Your task to perform on an android device: Go to network settings Image 0: 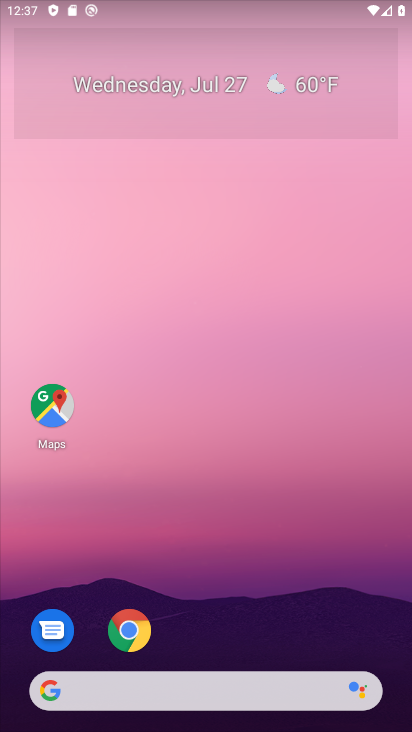
Step 0: press home button
Your task to perform on an android device: Go to network settings Image 1: 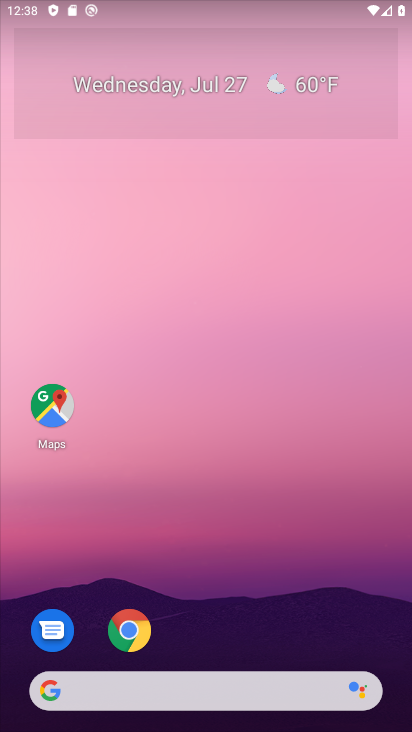
Step 1: drag from (258, 621) to (267, 225)
Your task to perform on an android device: Go to network settings Image 2: 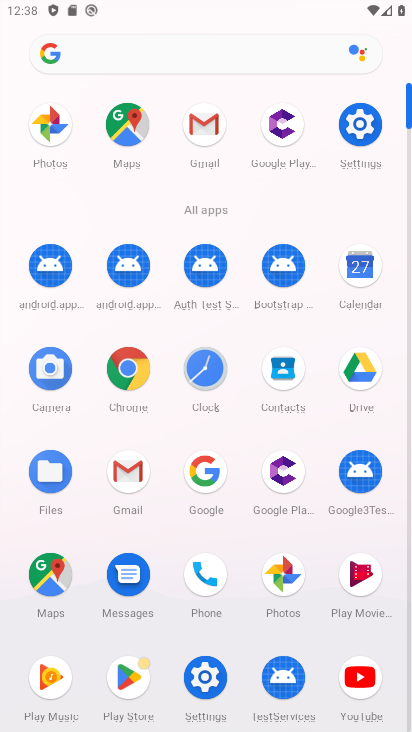
Step 2: click (355, 143)
Your task to perform on an android device: Go to network settings Image 3: 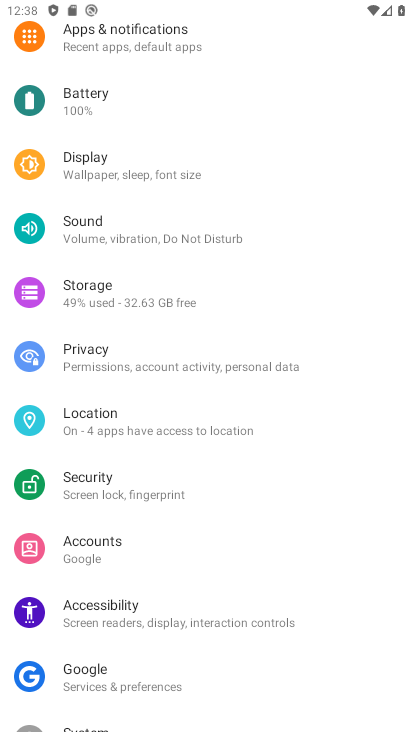
Step 3: drag from (333, 217) to (324, 600)
Your task to perform on an android device: Go to network settings Image 4: 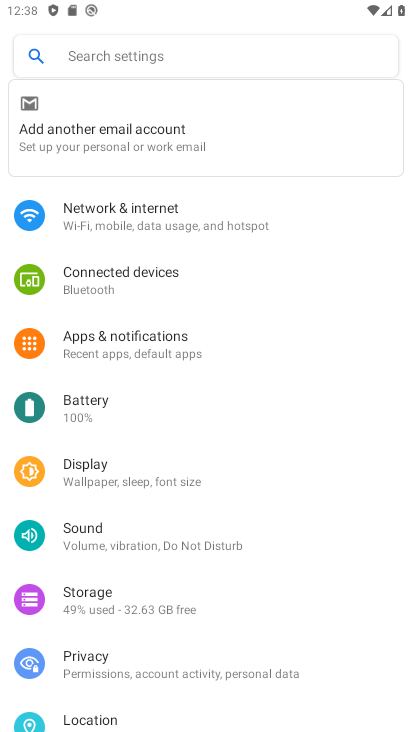
Step 4: click (110, 214)
Your task to perform on an android device: Go to network settings Image 5: 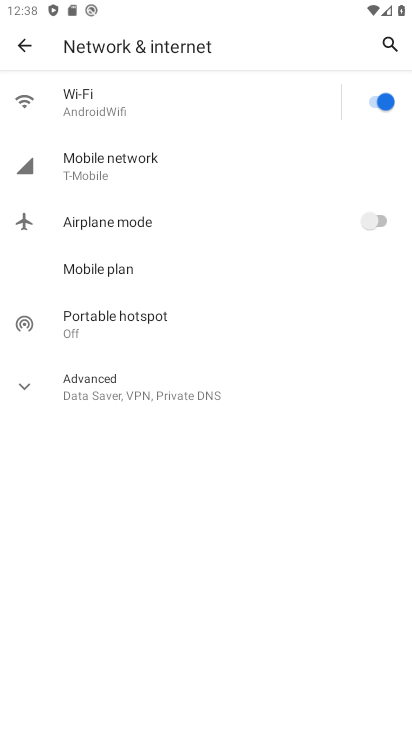
Step 5: task complete